Your task to perform on an android device: toggle pop-ups in chrome Image 0: 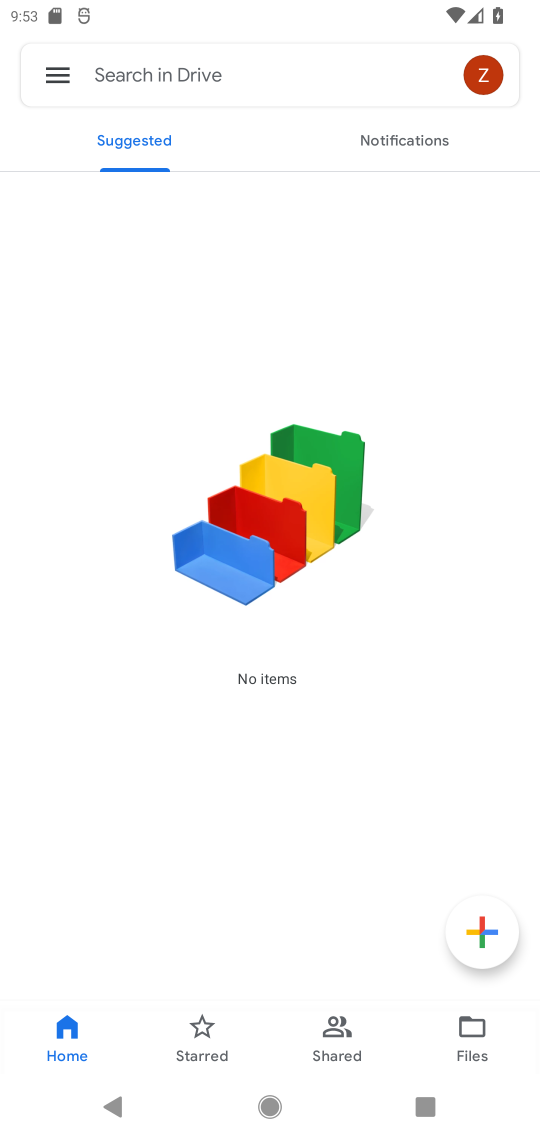
Step 0: press home button
Your task to perform on an android device: toggle pop-ups in chrome Image 1: 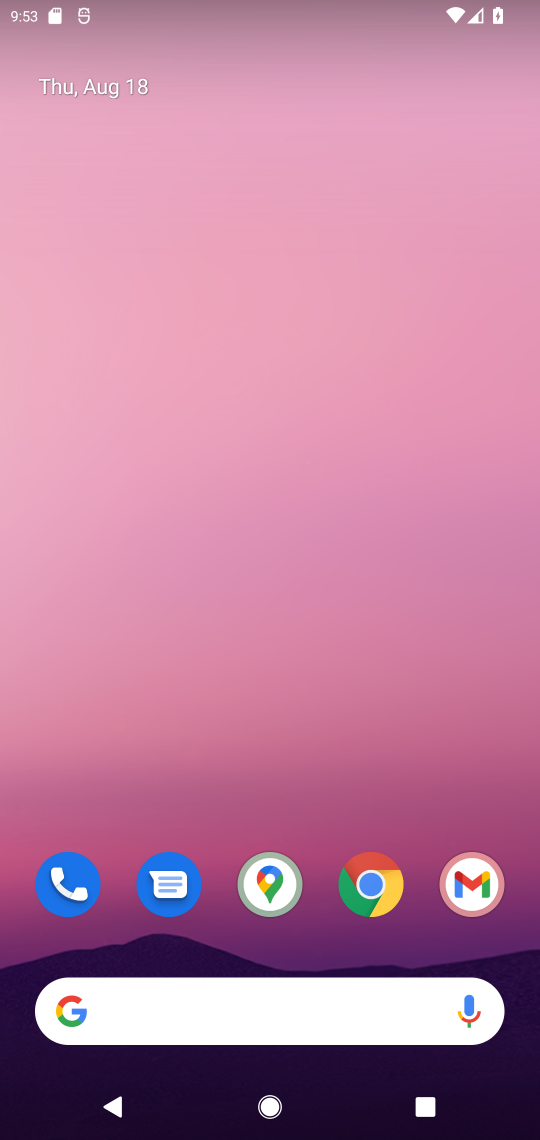
Step 1: click (363, 887)
Your task to perform on an android device: toggle pop-ups in chrome Image 2: 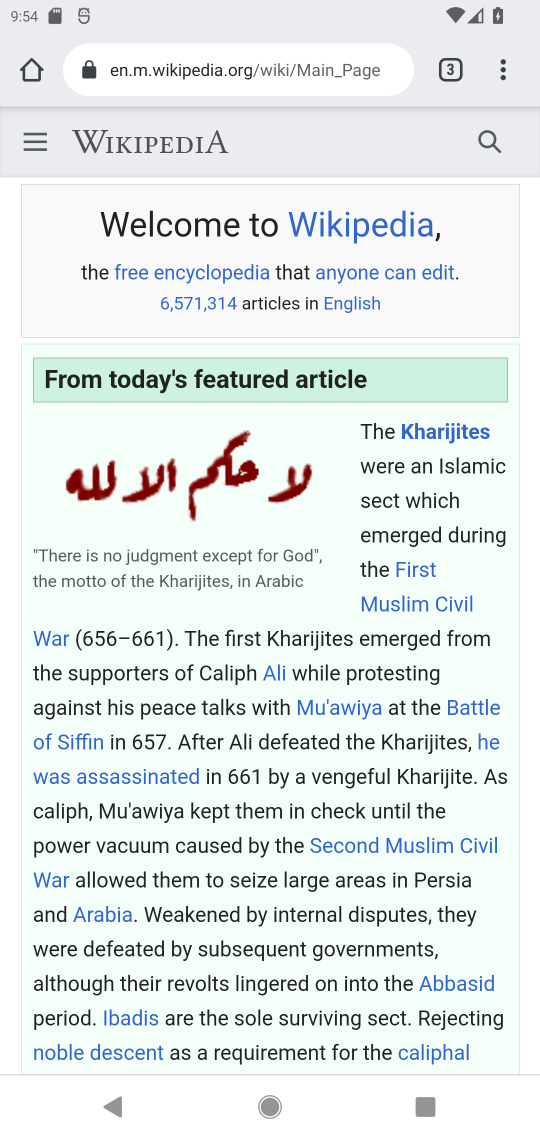
Step 2: click (519, 65)
Your task to perform on an android device: toggle pop-ups in chrome Image 3: 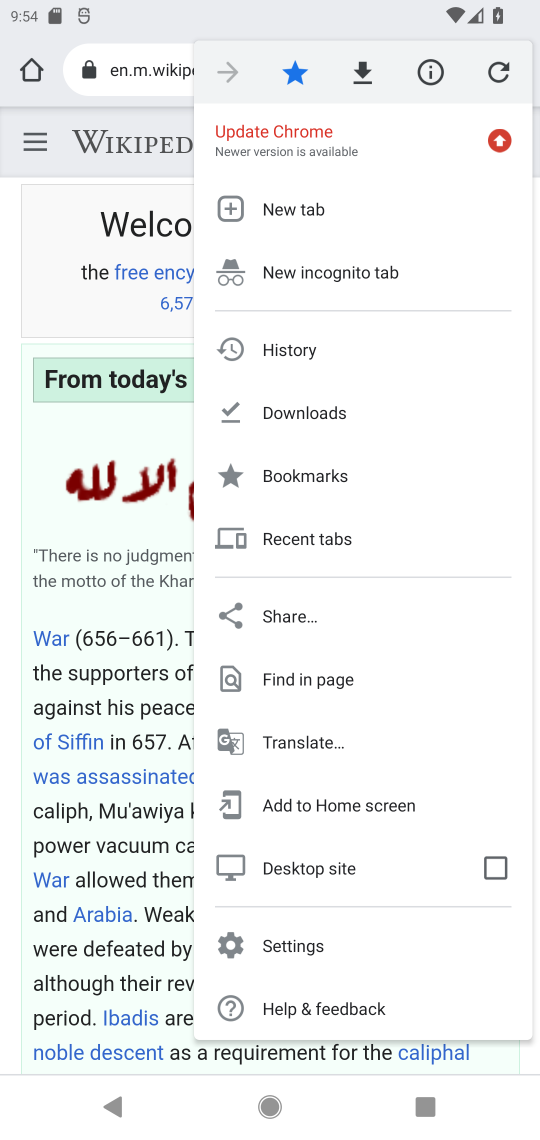
Step 3: click (235, 943)
Your task to perform on an android device: toggle pop-ups in chrome Image 4: 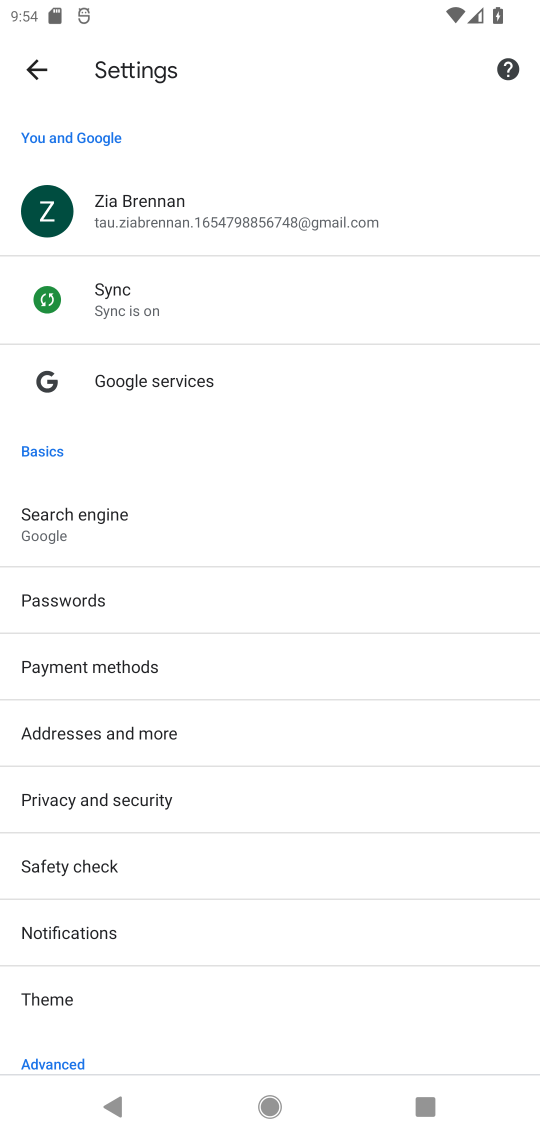
Step 4: drag from (202, 957) to (343, 221)
Your task to perform on an android device: toggle pop-ups in chrome Image 5: 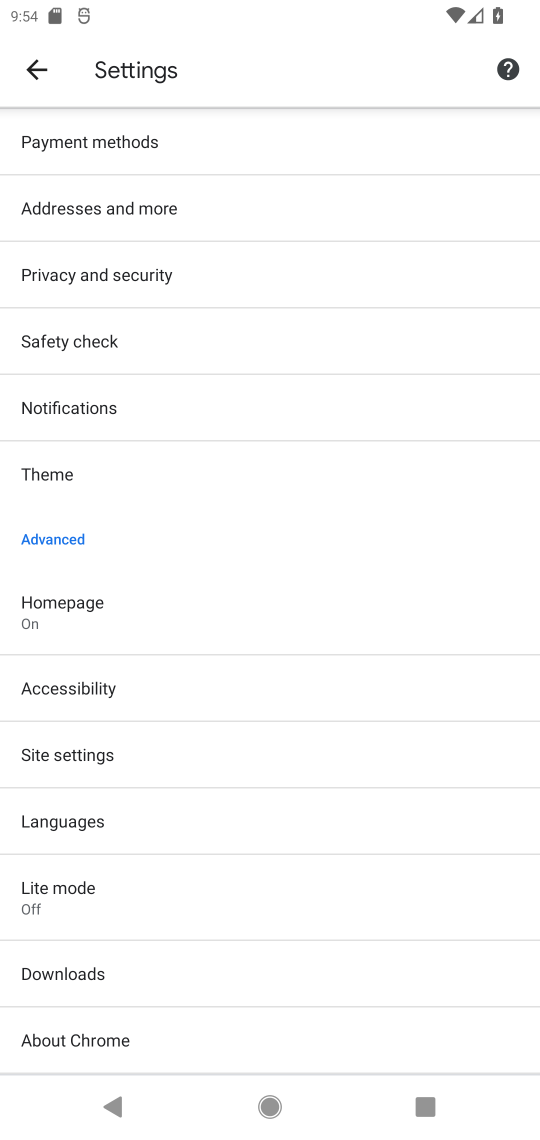
Step 5: drag from (209, 1001) to (264, 345)
Your task to perform on an android device: toggle pop-ups in chrome Image 6: 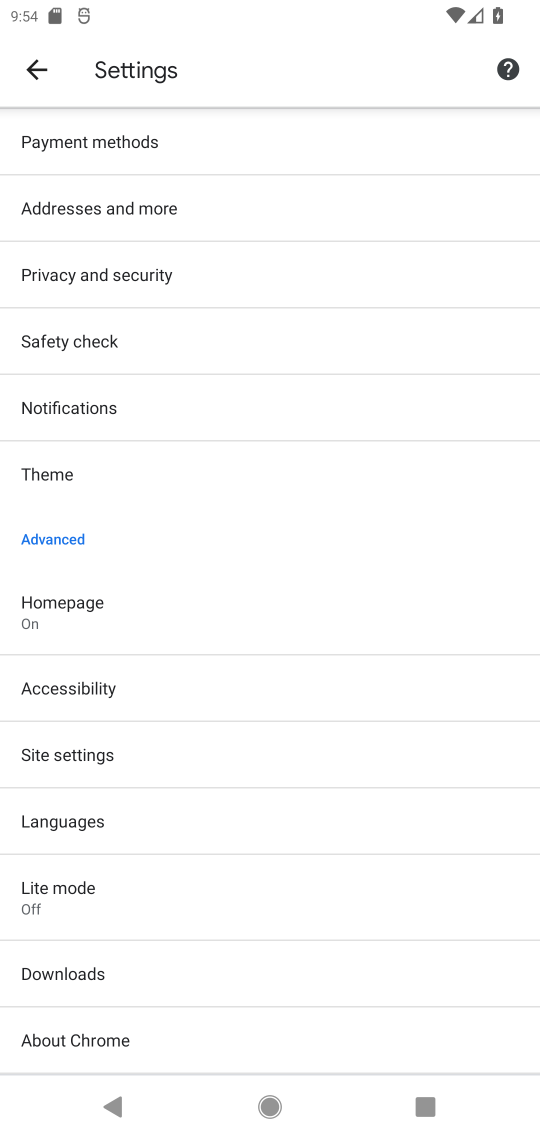
Step 6: drag from (353, 268) to (390, 1030)
Your task to perform on an android device: toggle pop-ups in chrome Image 7: 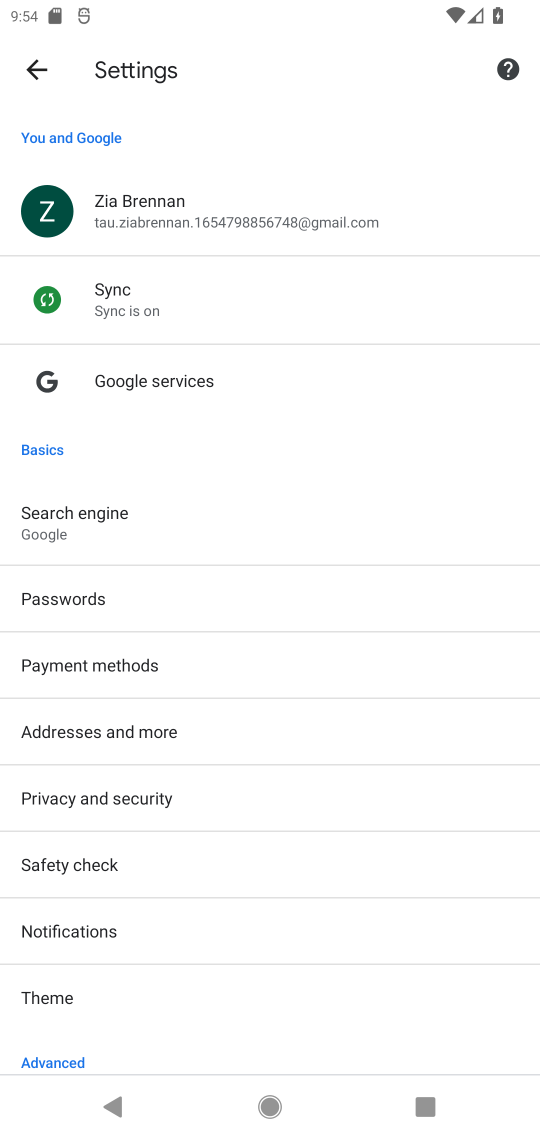
Step 7: drag from (185, 979) to (247, 165)
Your task to perform on an android device: toggle pop-ups in chrome Image 8: 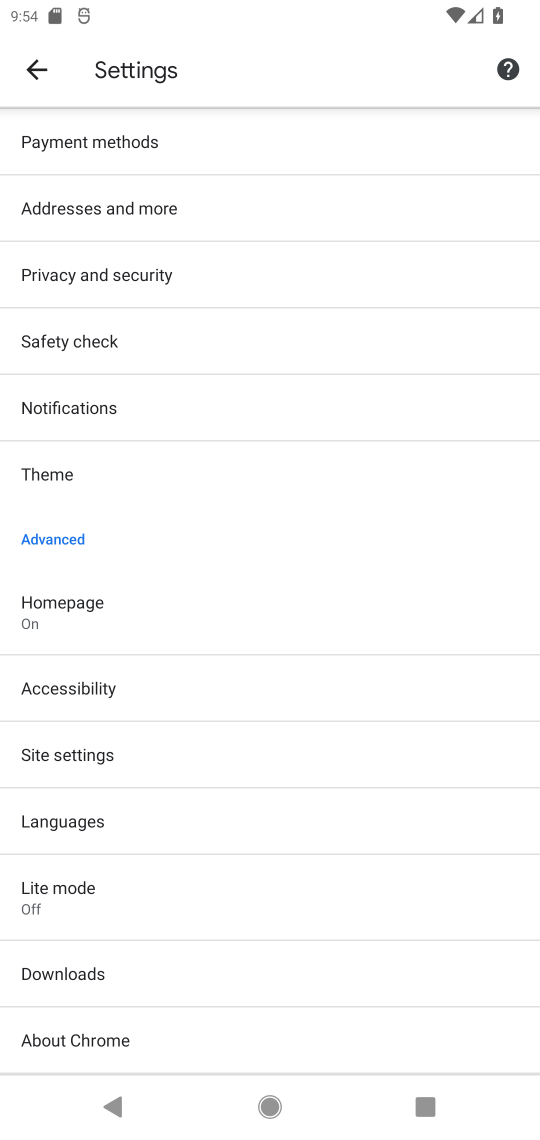
Step 8: click (118, 756)
Your task to perform on an android device: toggle pop-ups in chrome Image 9: 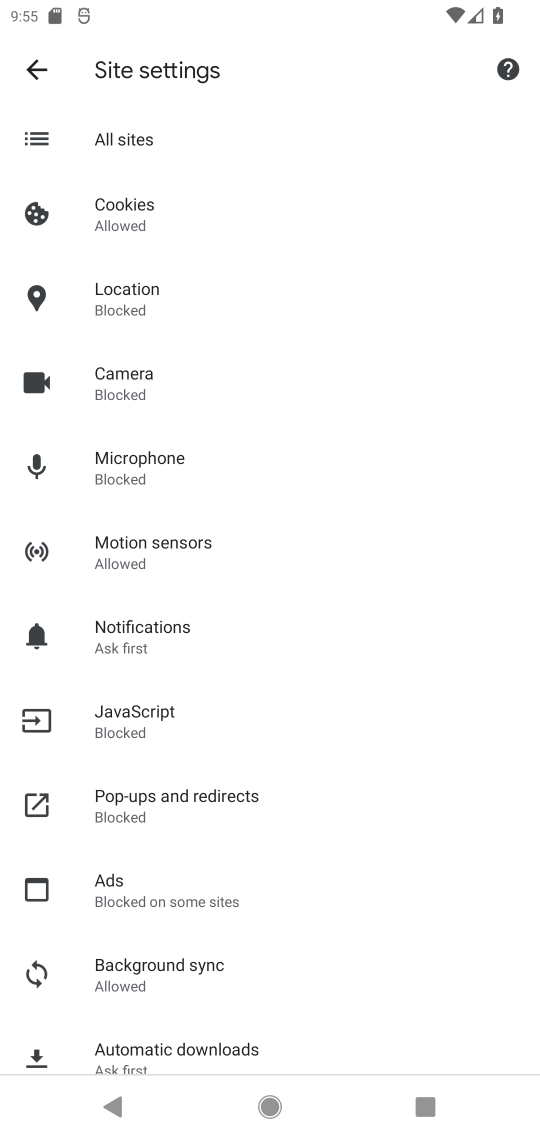
Step 9: click (219, 816)
Your task to perform on an android device: toggle pop-ups in chrome Image 10: 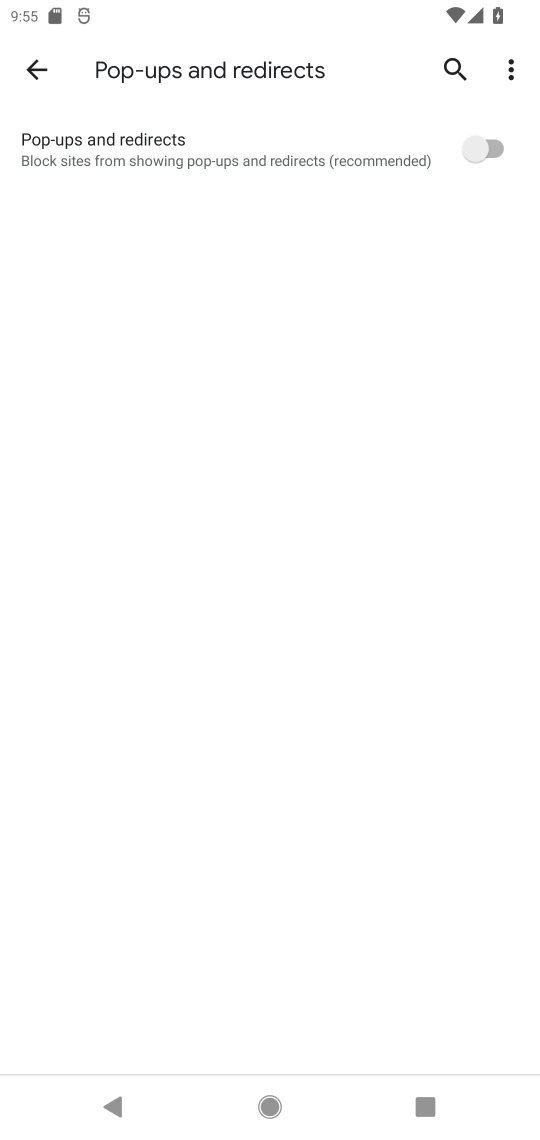
Step 10: click (491, 131)
Your task to perform on an android device: toggle pop-ups in chrome Image 11: 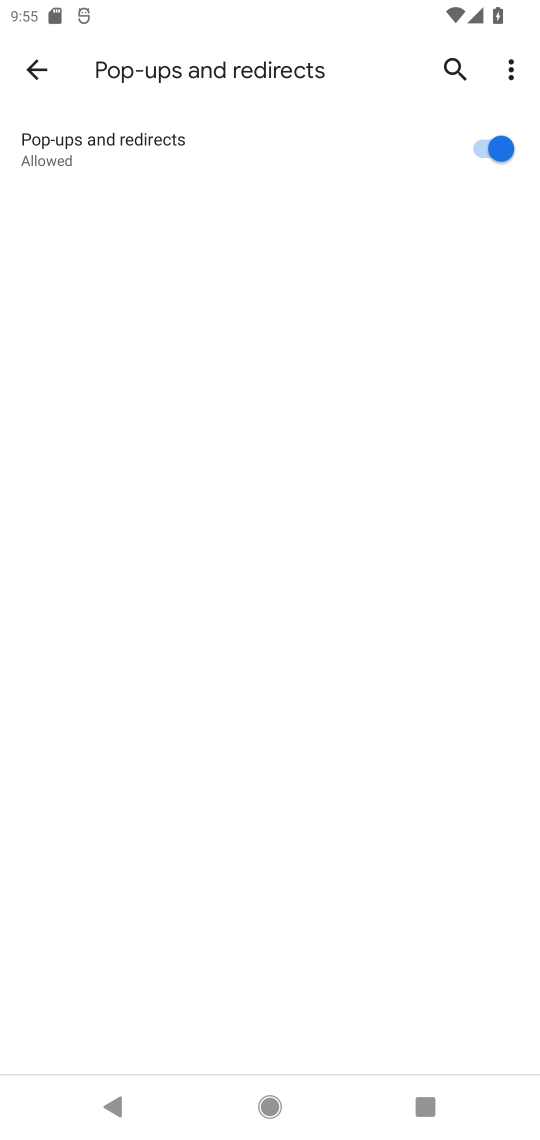
Step 11: click (491, 131)
Your task to perform on an android device: toggle pop-ups in chrome Image 12: 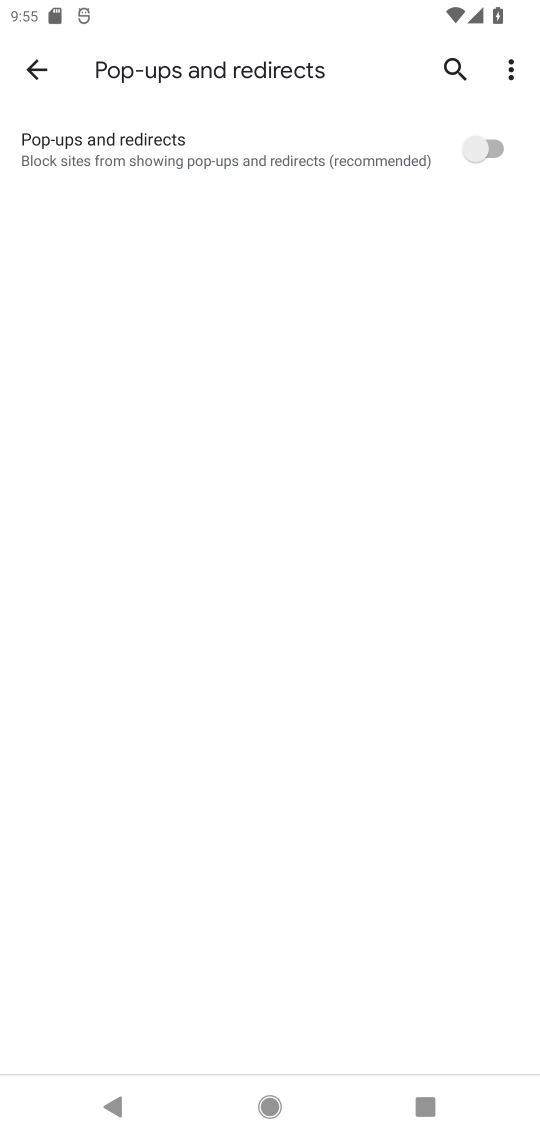
Step 12: task complete